Your task to perform on an android device: empty trash in the gmail app Image 0: 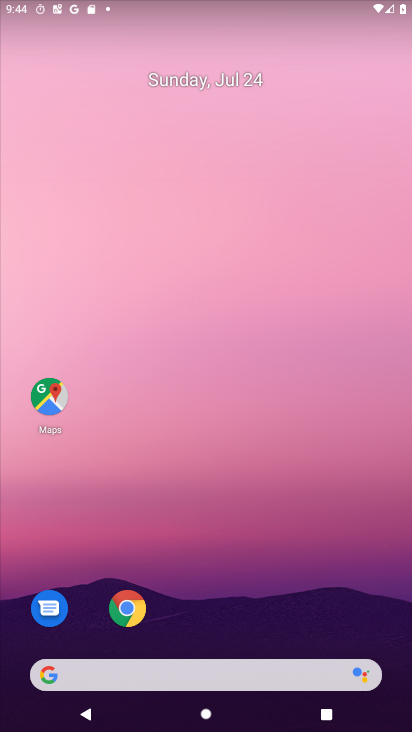
Step 0: drag from (211, 639) to (385, 124)
Your task to perform on an android device: empty trash in the gmail app Image 1: 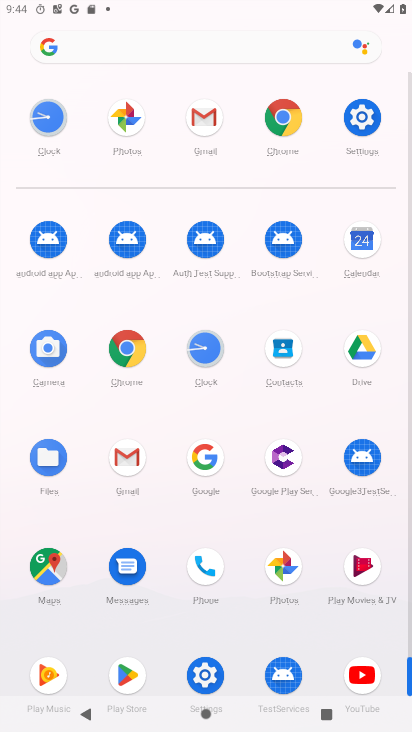
Step 1: click (194, 107)
Your task to perform on an android device: empty trash in the gmail app Image 2: 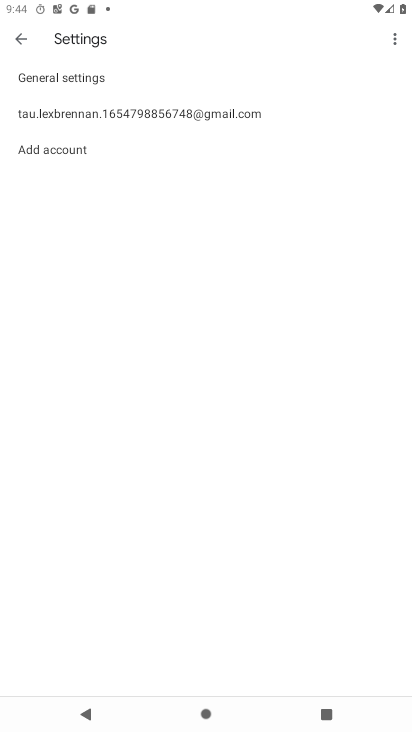
Step 2: click (38, 37)
Your task to perform on an android device: empty trash in the gmail app Image 3: 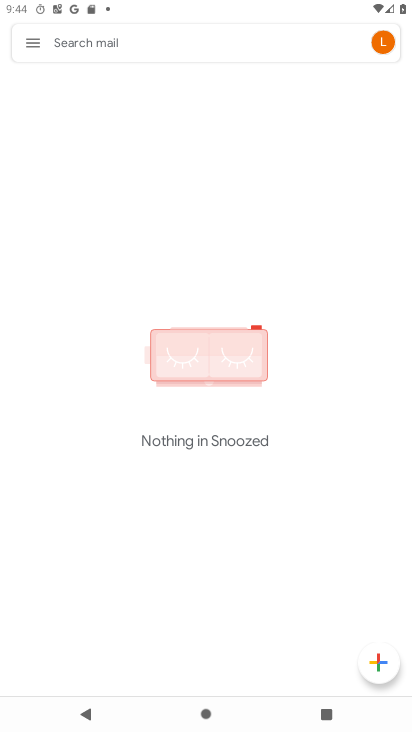
Step 3: click (38, 37)
Your task to perform on an android device: empty trash in the gmail app Image 4: 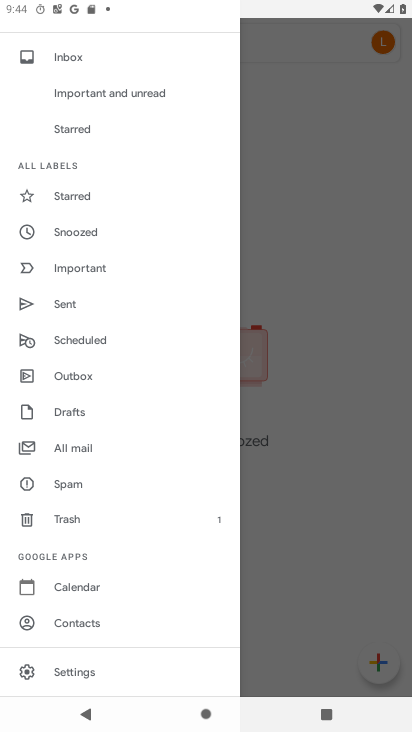
Step 4: click (78, 537)
Your task to perform on an android device: empty trash in the gmail app Image 5: 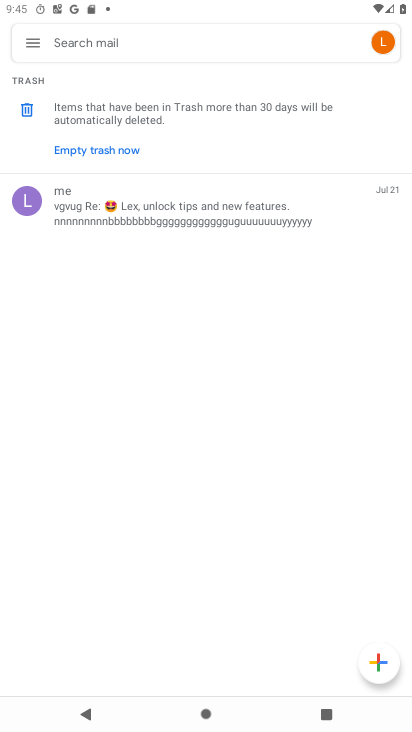
Step 5: click (99, 162)
Your task to perform on an android device: empty trash in the gmail app Image 6: 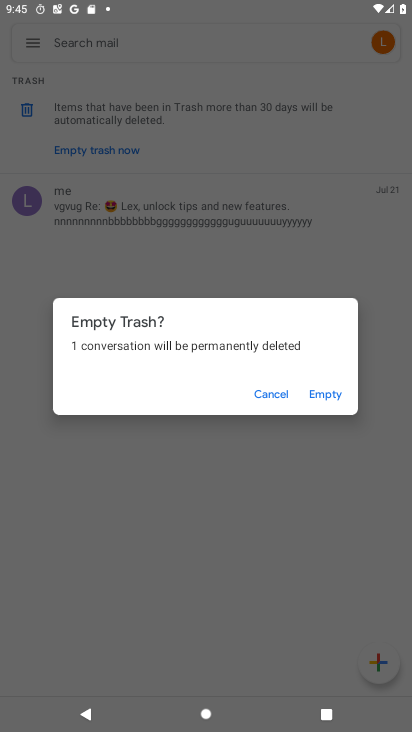
Step 6: click (349, 401)
Your task to perform on an android device: empty trash in the gmail app Image 7: 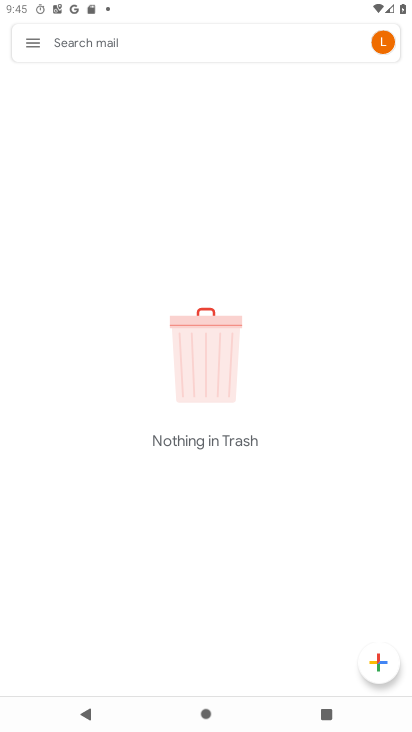
Step 7: task complete